Your task to perform on an android device: Search for a 3D printer on aliexpress. Image 0: 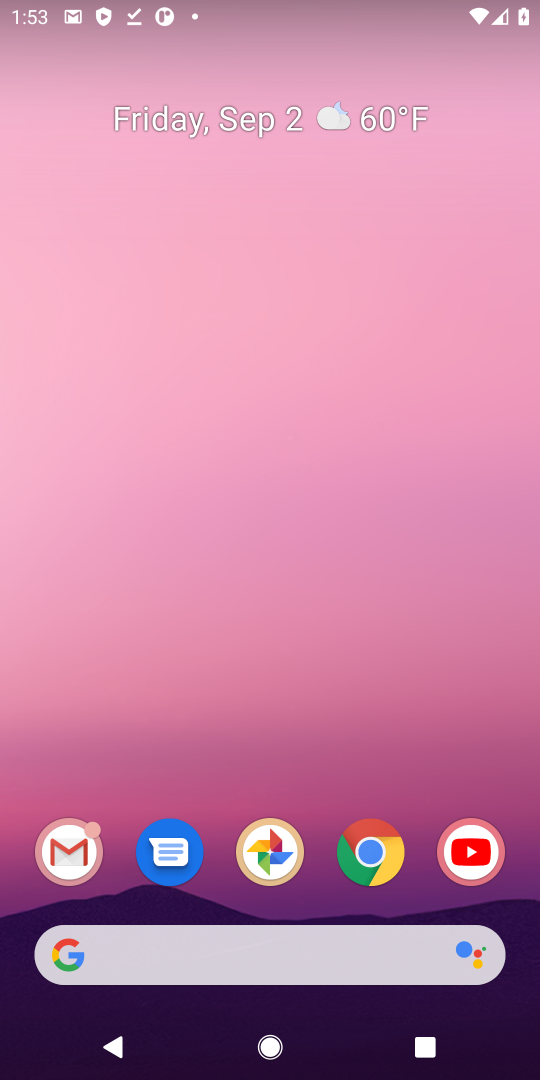
Step 0: drag from (316, 782) to (365, 23)
Your task to perform on an android device: Search for a 3D printer on aliexpress. Image 1: 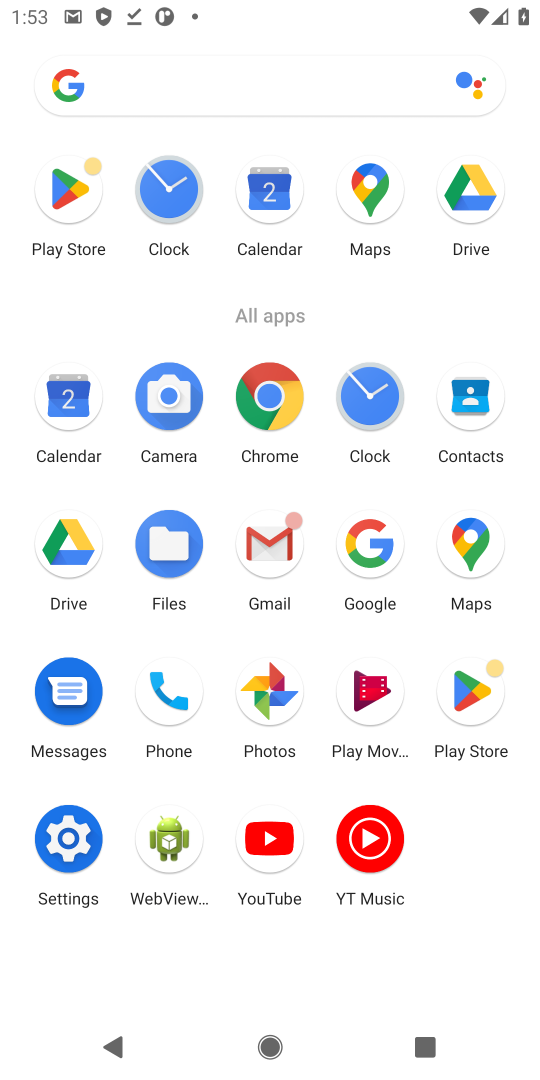
Step 1: click (273, 393)
Your task to perform on an android device: Search for a 3D printer on aliexpress. Image 2: 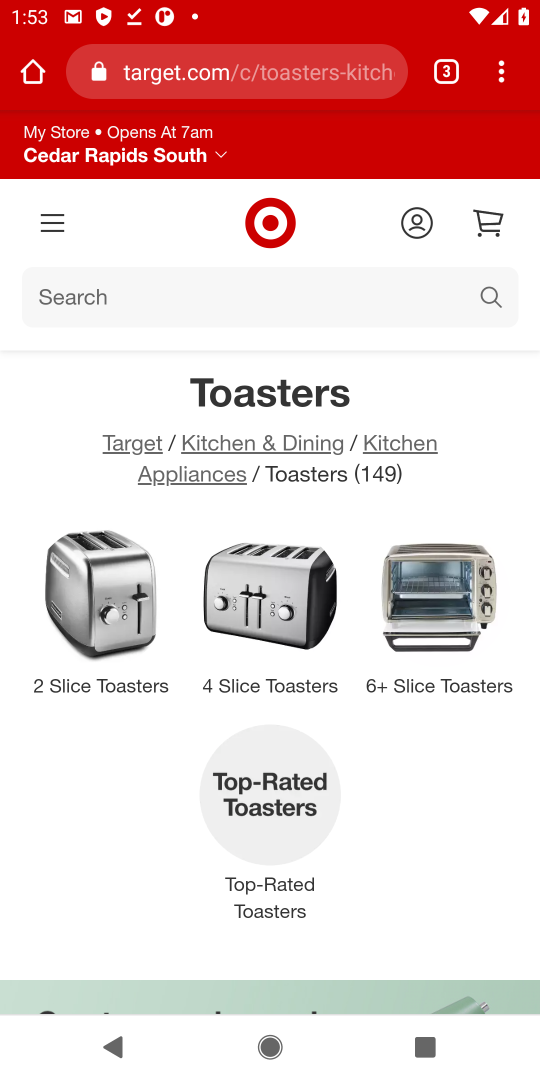
Step 2: click (290, 82)
Your task to perform on an android device: Search for a 3D printer on aliexpress. Image 3: 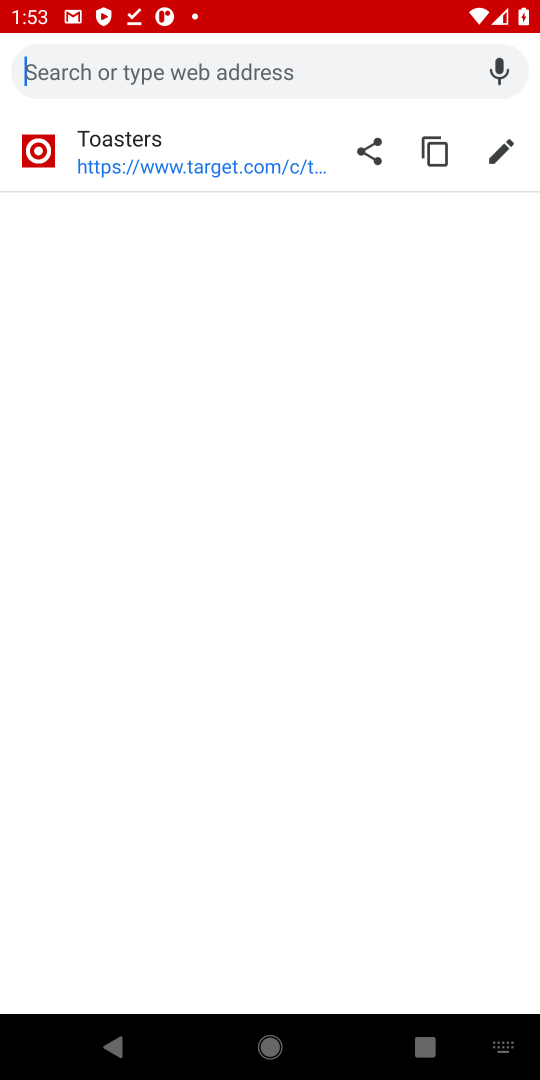
Step 3: type "3D  printer on aliexpress"
Your task to perform on an android device: Search for a 3D printer on aliexpress. Image 4: 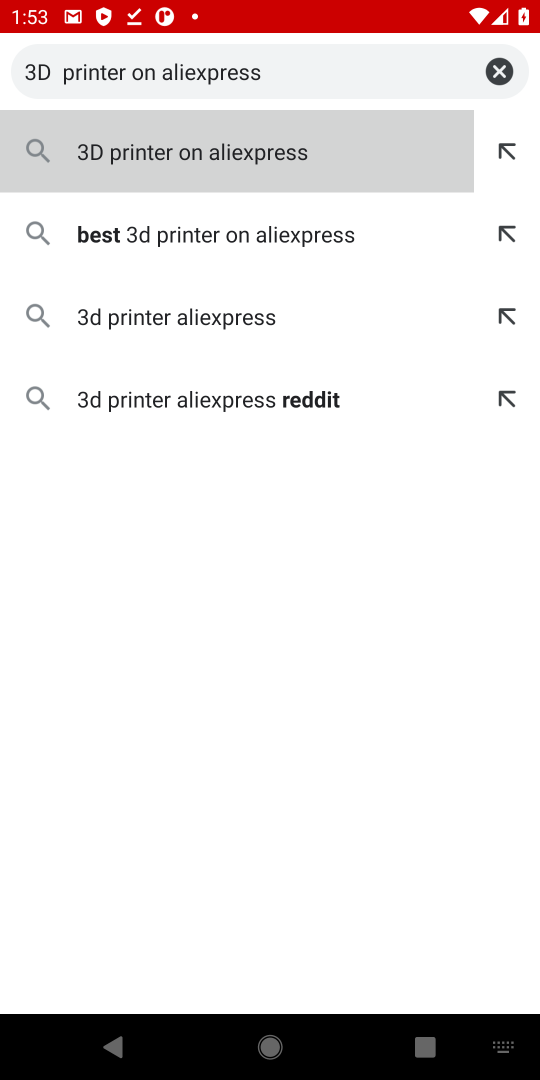
Step 4: press enter
Your task to perform on an android device: Search for a 3D printer on aliexpress. Image 5: 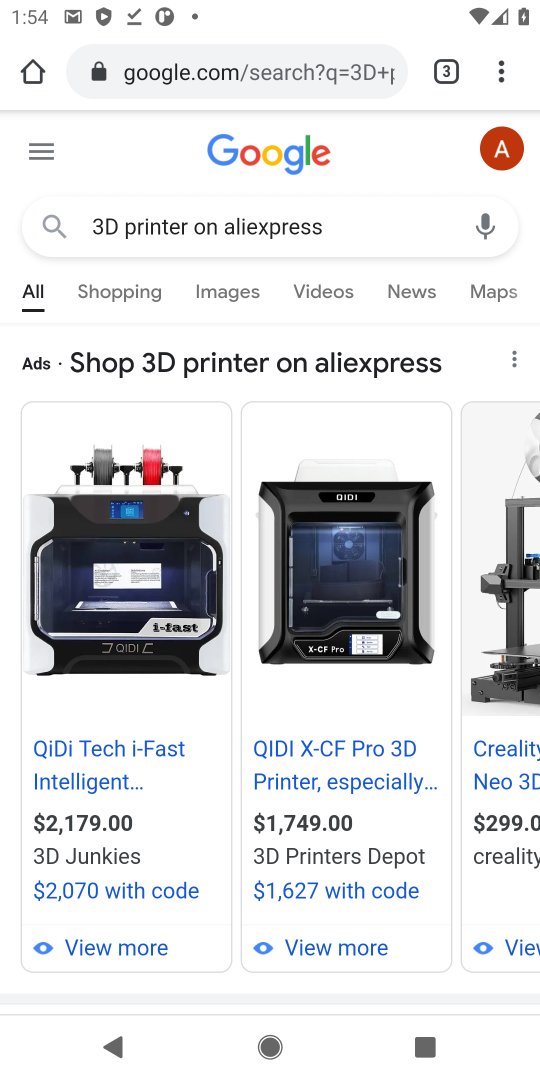
Step 5: drag from (308, 919) to (390, 168)
Your task to perform on an android device: Search for a 3D printer on aliexpress. Image 6: 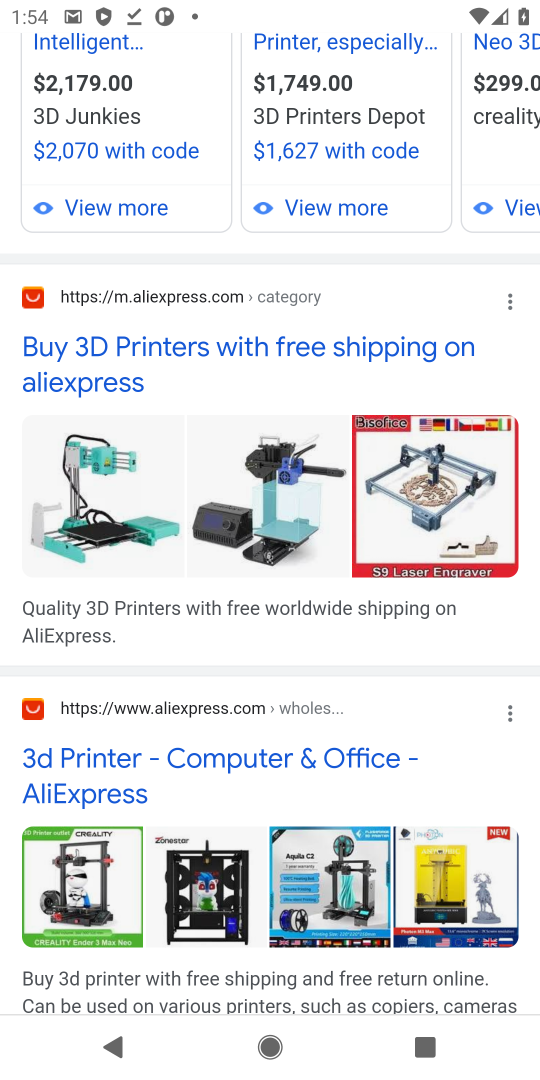
Step 6: click (244, 756)
Your task to perform on an android device: Search for a 3D printer on aliexpress. Image 7: 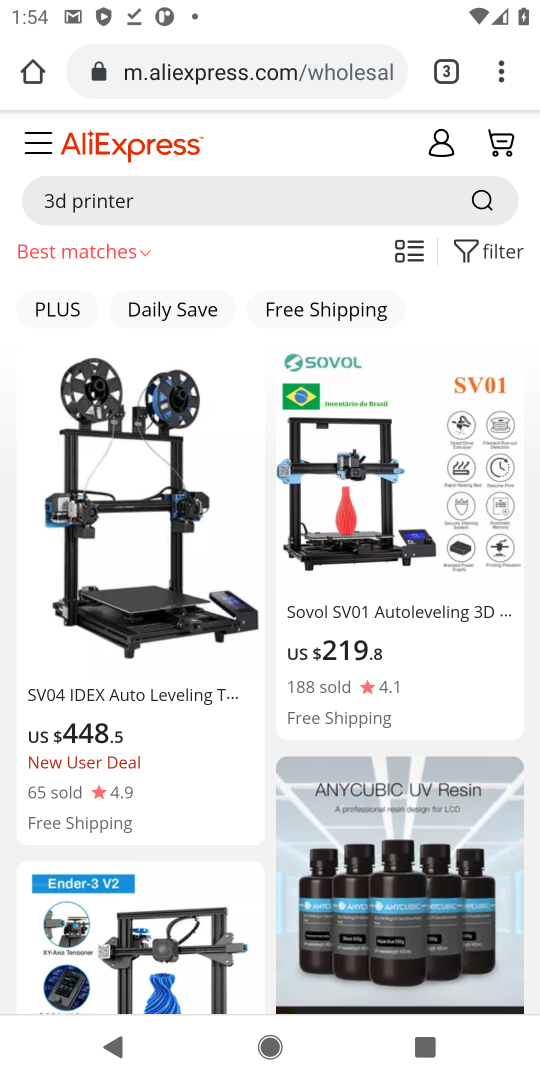
Step 7: task complete